Your task to perform on an android device: Open calendar and show me the fourth week of next month Image 0: 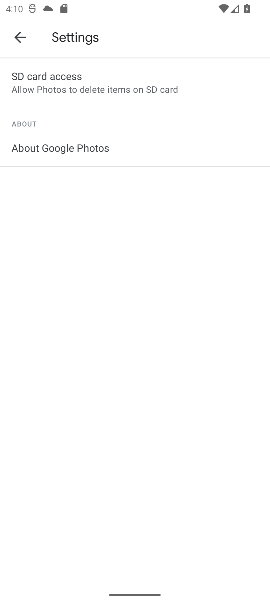
Step 0: press home button
Your task to perform on an android device: Open calendar and show me the fourth week of next month Image 1: 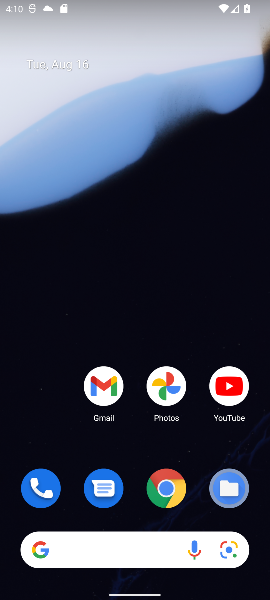
Step 1: task complete